Your task to perform on an android device: turn off picture-in-picture Image 0: 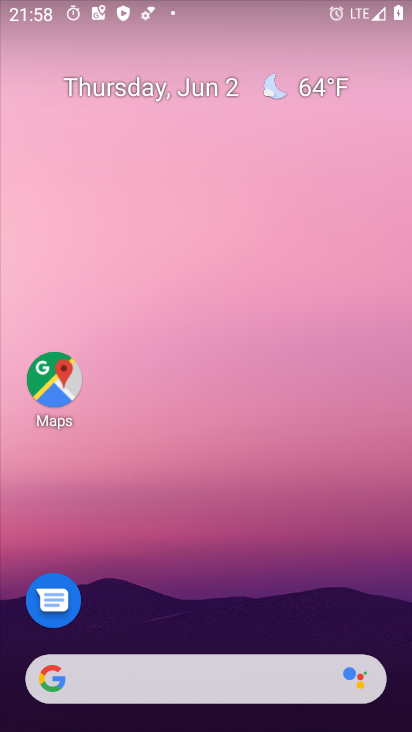
Step 0: drag from (234, 500) to (194, 52)
Your task to perform on an android device: turn off picture-in-picture Image 1: 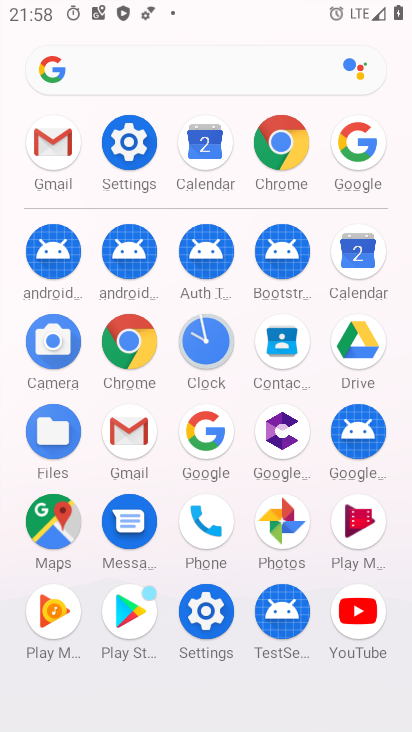
Step 1: click (135, 351)
Your task to perform on an android device: turn off picture-in-picture Image 2: 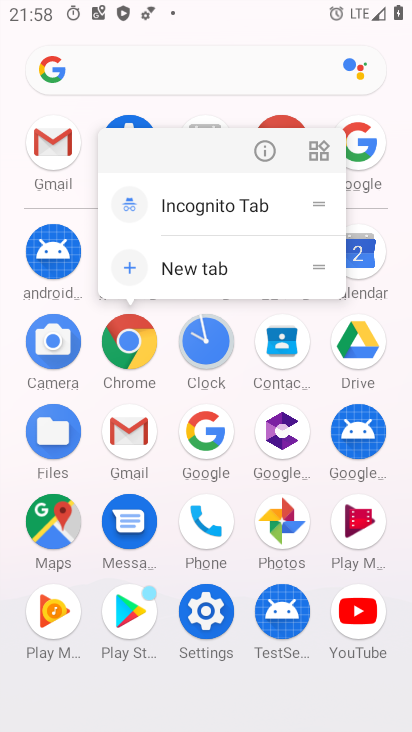
Step 2: click (249, 153)
Your task to perform on an android device: turn off picture-in-picture Image 3: 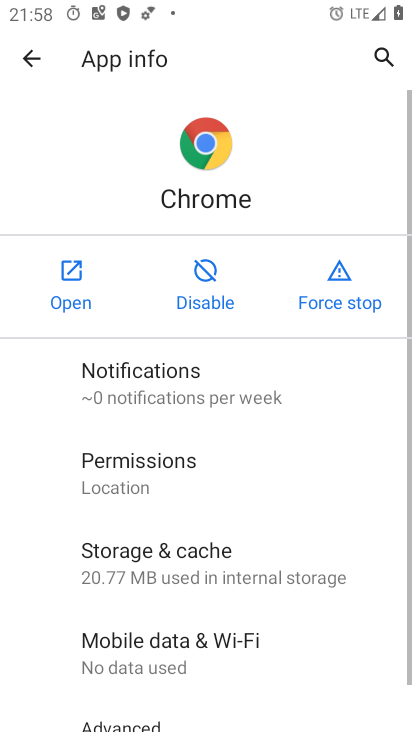
Step 3: drag from (206, 646) to (227, 59)
Your task to perform on an android device: turn off picture-in-picture Image 4: 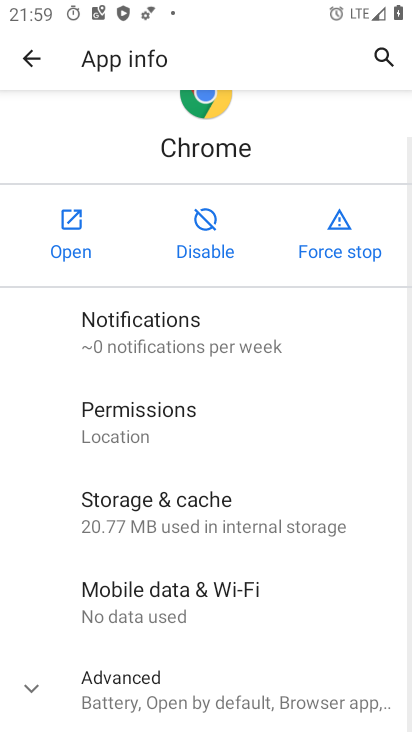
Step 4: click (90, 682)
Your task to perform on an android device: turn off picture-in-picture Image 5: 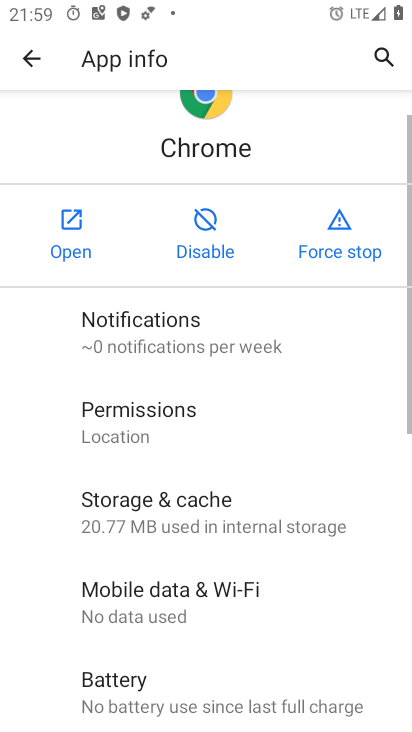
Step 5: drag from (91, 679) to (123, 203)
Your task to perform on an android device: turn off picture-in-picture Image 6: 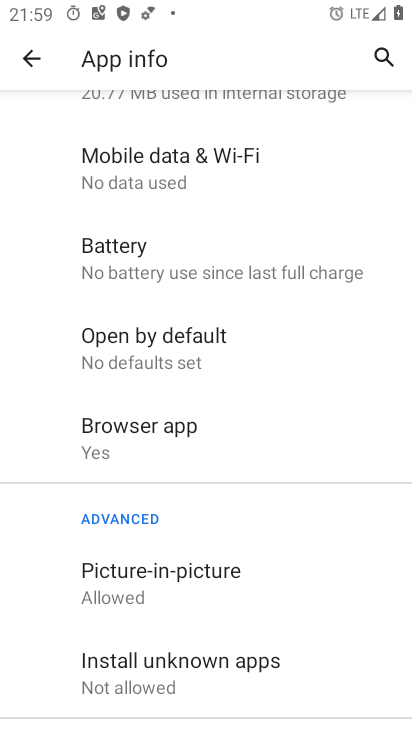
Step 6: click (137, 585)
Your task to perform on an android device: turn off picture-in-picture Image 7: 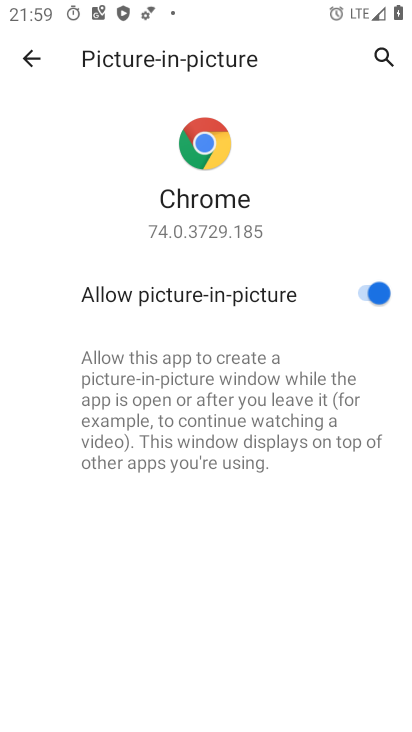
Step 7: click (356, 281)
Your task to perform on an android device: turn off picture-in-picture Image 8: 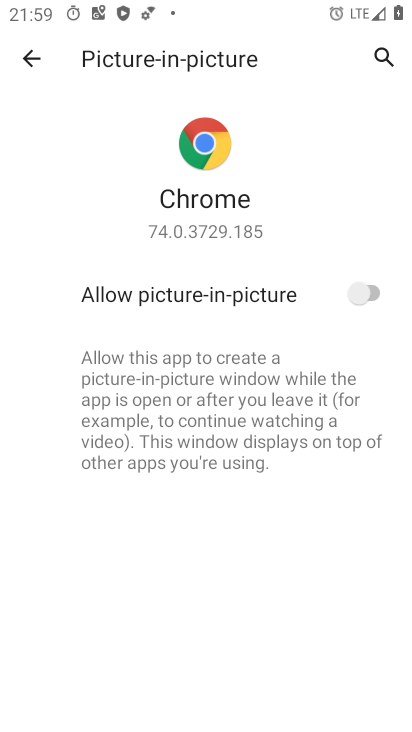
Step 8: task complete